Your task to perform on an android device: refresh tabs in the chrome app Image 0: 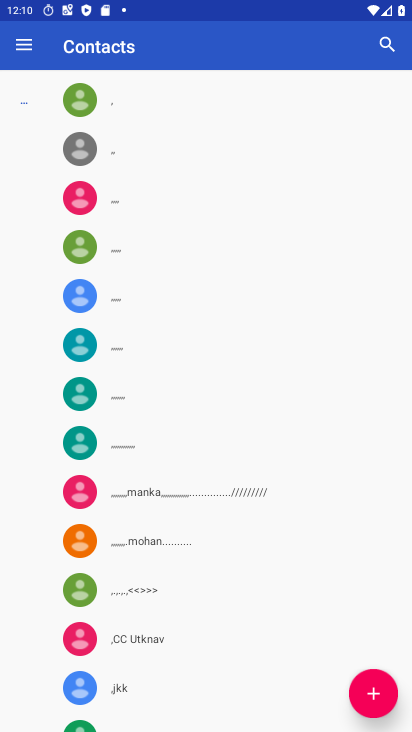
Step 0: press home button
Your task to perform on an android device: refresh tabs in the chrome app Image 1: 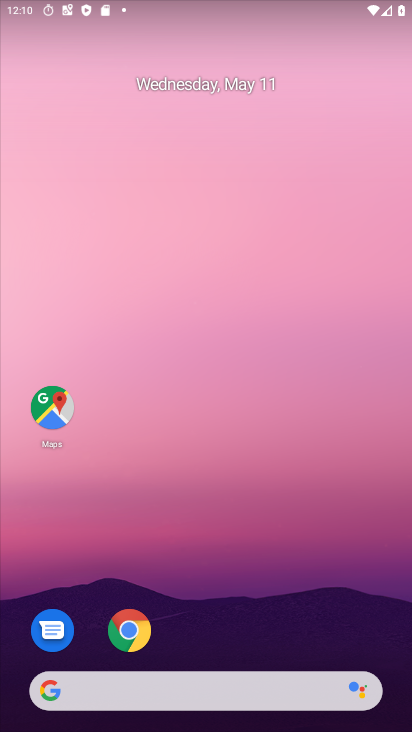
Step 1: click (120, 627)
Your task to perform on an android device: refresh tabs in the chrome app Image 2: 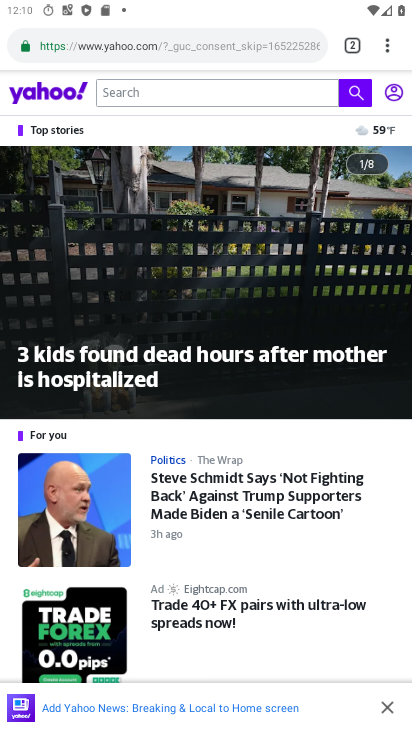
Step 2: click (392, 47)
Your task to perform on an android device: refresh tabs in the chrome app Image 3: 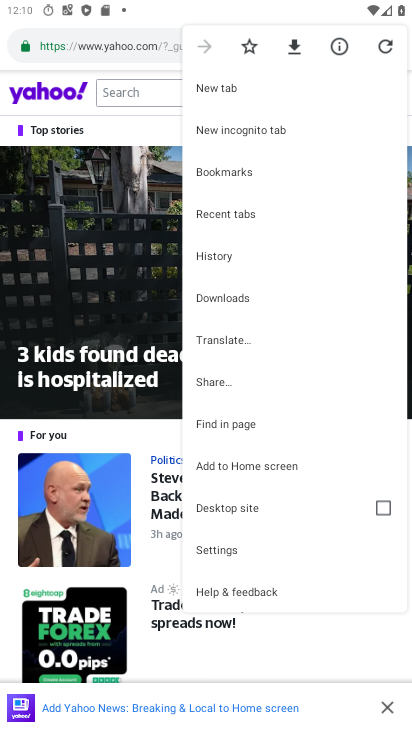
Step 3: click (392, 47)
Your task to perform on an android device: refresh tabs in the chrome app Image 4: 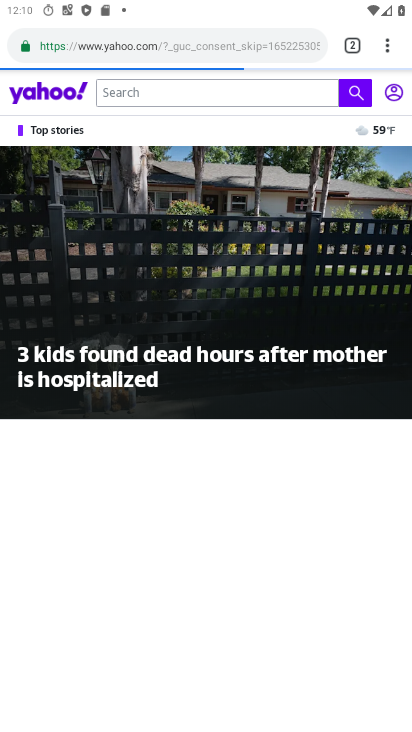
Step 4: task complete